Your task to perform on an android device: Show me popular videos on Youtube Image 0: 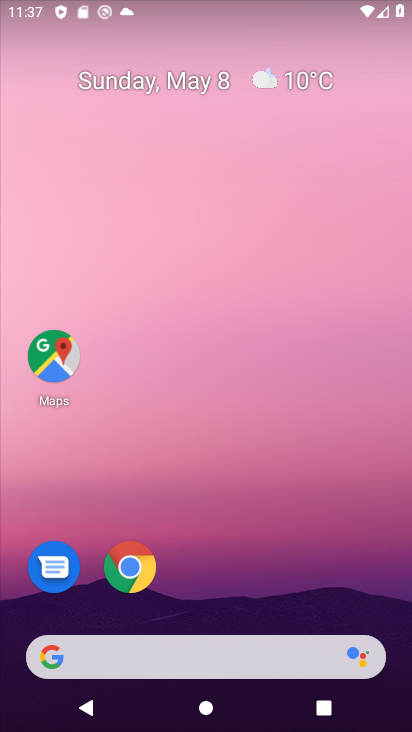
Step 0: drag from (201, 474) to (228, 71)
Your task to perform on an android device: Show me popular videos on Youtube Image 1: 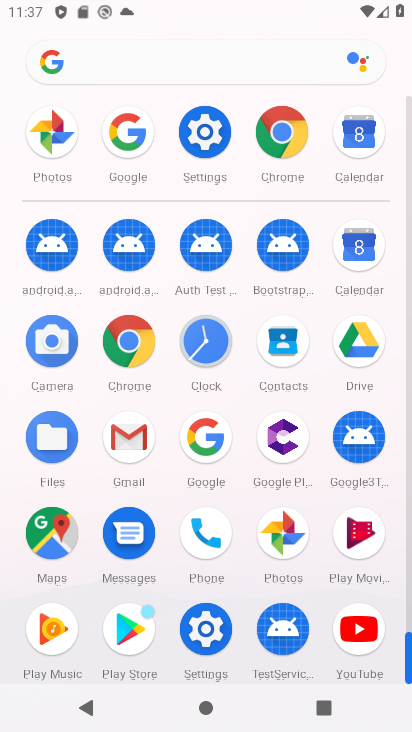
Step 1: click (371, 621)
Your task to perform on an android device: Show me popular videos on Youtube Image 2: 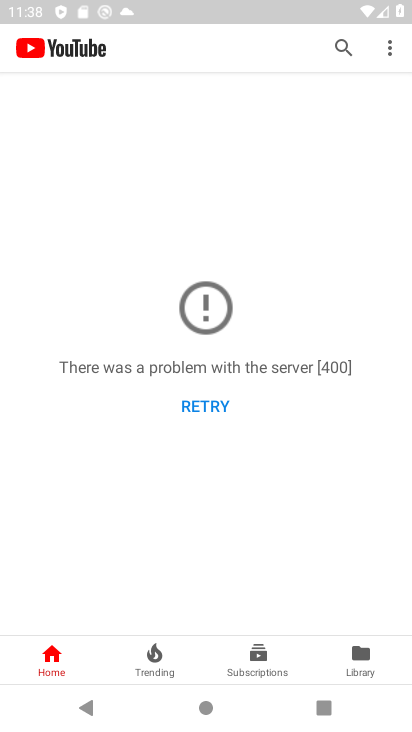
Step 2: click (364, 661)
Your task to perform on an android device: Show me popular videos on Youtube Image 3: 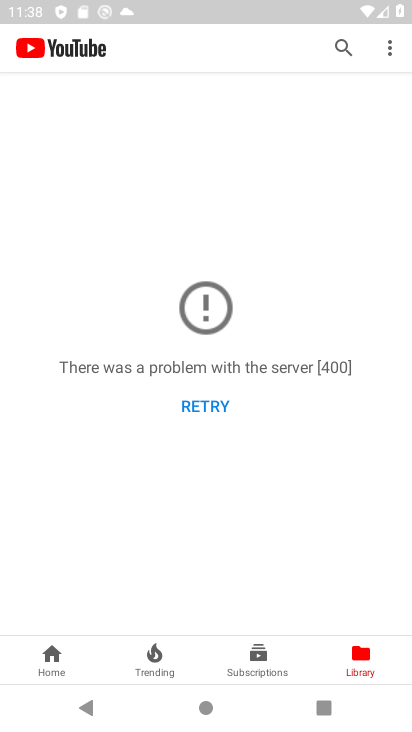
Step 3: click (222, 399)
Your task to perform on an android device: Show me popular videos on Youtube Image 4: 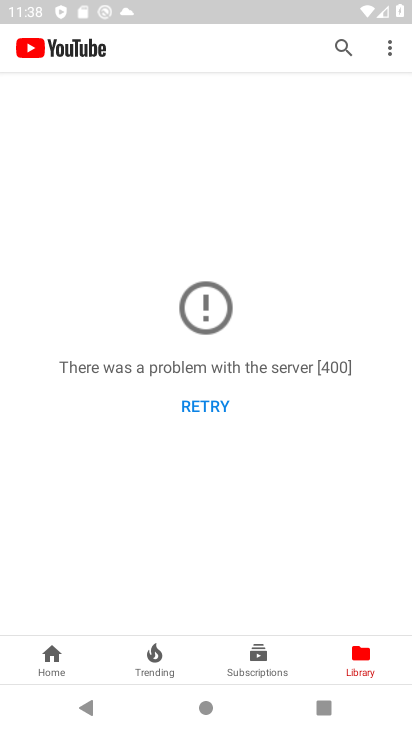
Step 4: task complete